Your task to perform on an android device: toggle javascript in the chrome app Image 0: 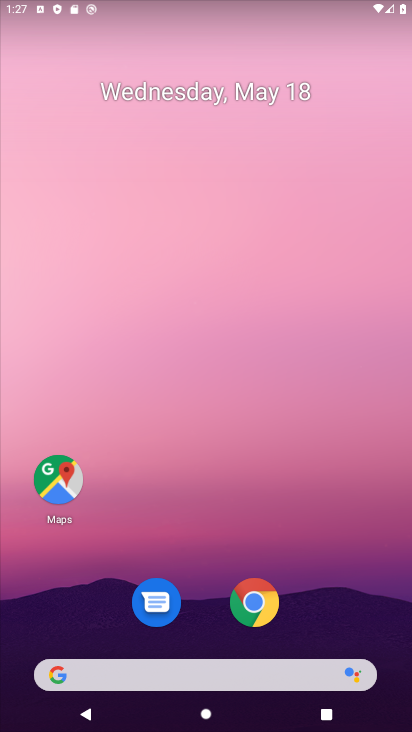
Step 0: click (265, 599)
Your task to perform on an android device: toggle javascript in the chrome app Image 1: 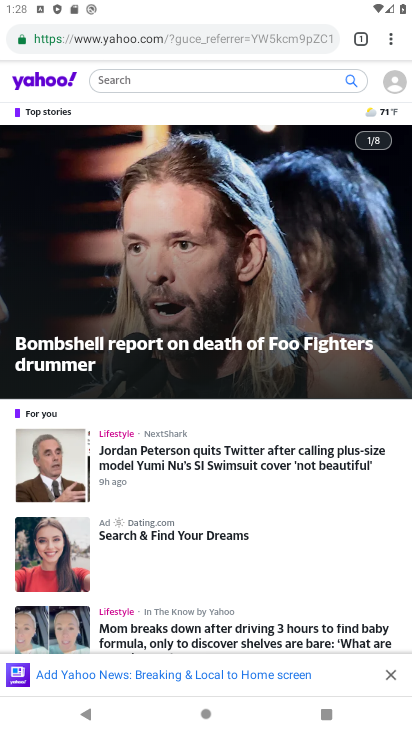
Step 1: click (388, 37)
Your task to perform on an android device: toggle javascript in the chrome app Image 2: 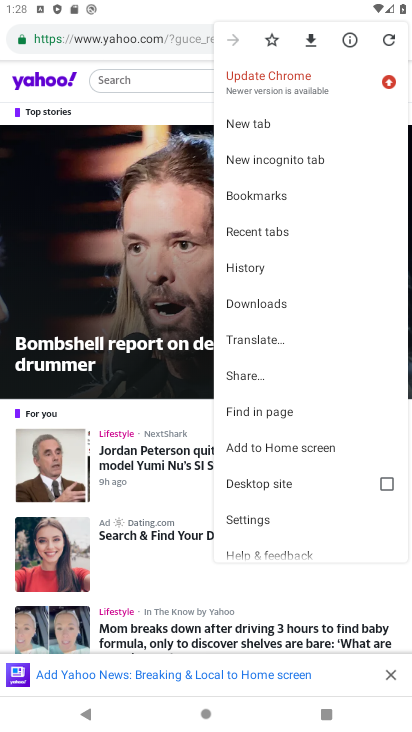
Step 2: click (268, 529)
Your task to perform on an android device: toggle javascript in the chrome app Image 3: 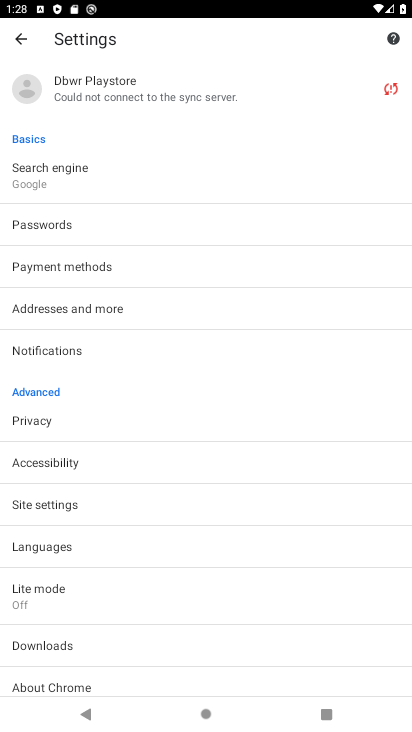
Step 3: click (72, 509)
Your task to perform on an android device: toggle javascript in the chrome app Image 4: 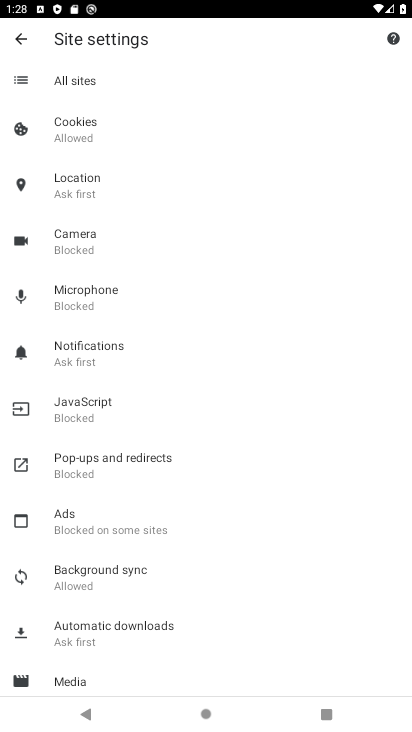
Step 4: click (84, 412)
Your task to perform on an android device: toggle javascript in the chrome app Image 5: 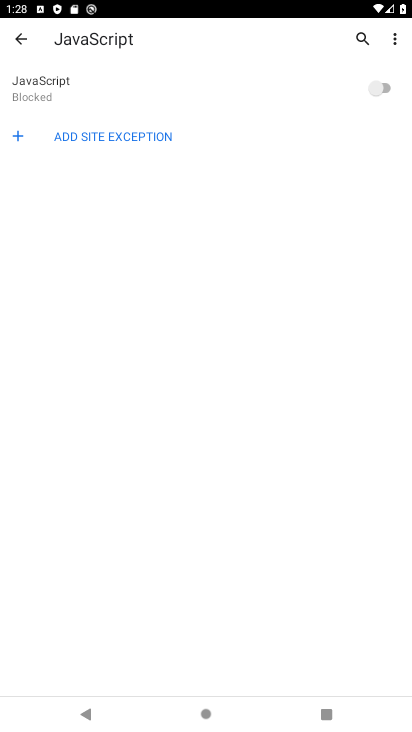
Step 5: click (381, 85)
Your task to perform on an android device: toggle javascript in the chrome app Image 6: 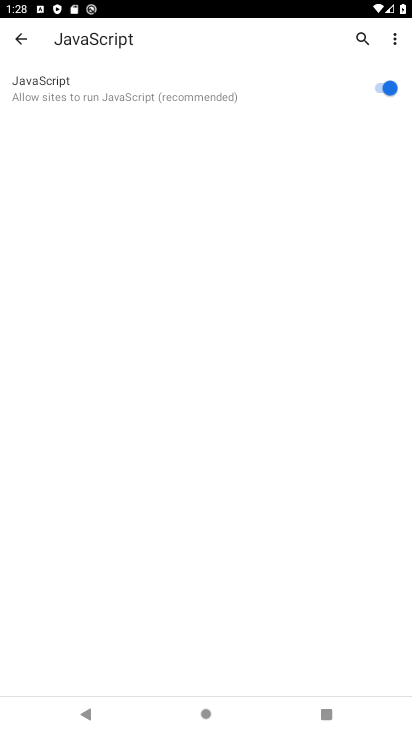
Step 6: task complete